Your task to perform on an android device: Open privacy settings Image 0: 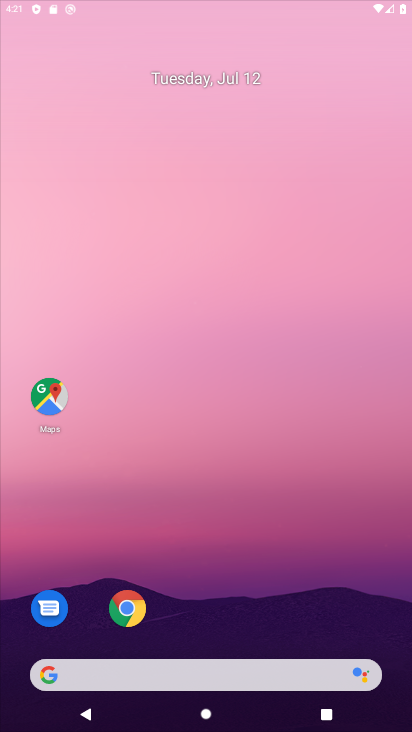
Step 0: drag from (234, 632) to (97, 5)
Your task to perform on an android device: Open privacy settings Image 1: 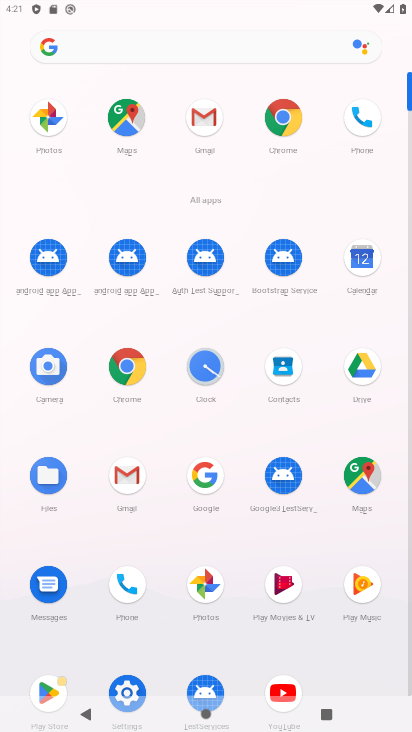
Step 1: click (211, 121)
Your task to perform on an android device: Open privacy settings Image 2: 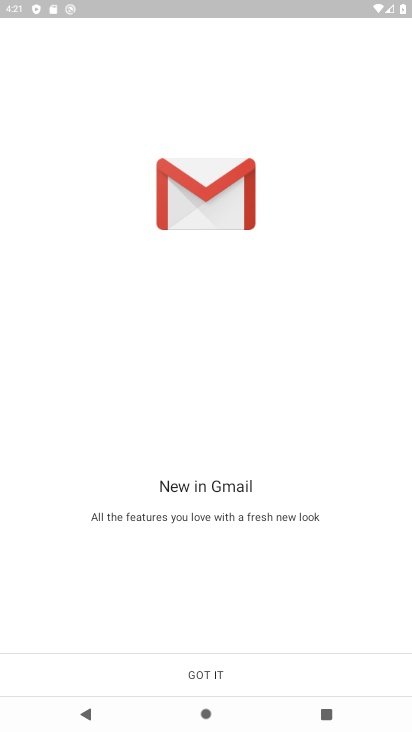
Step 2: press home button
Your task to perform on an android device: Open privacy settings Image 3: 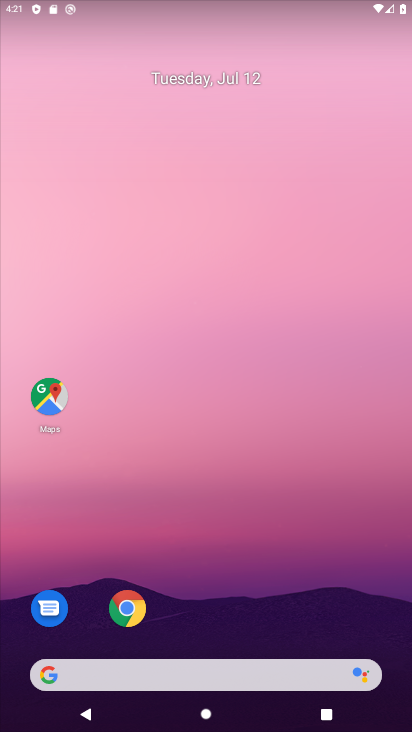
Step 3: drag from (238, 623) to (214, 30)
Your task to perform on an android device: Open privacy settings Image 4: 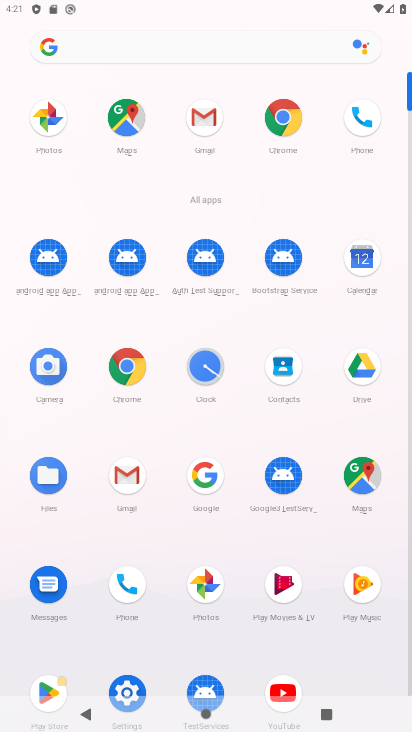
Step 4: click (125, 688)
Your task to perform on an android device: Open privacy settings Image 5: 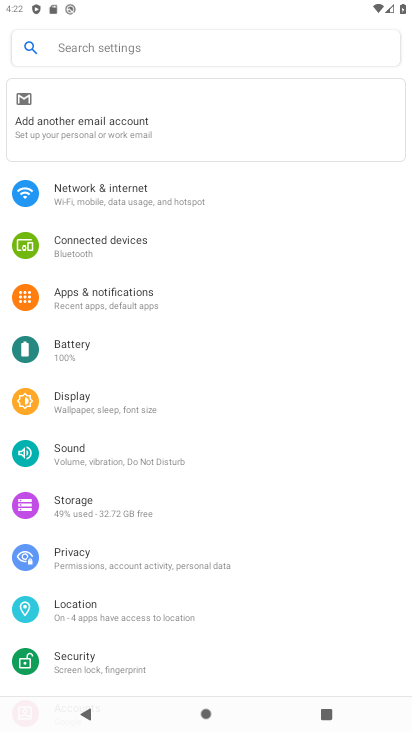
Step 5: click (173, 567)
Your task to perform on an android device: Open privacy settings Image 6: 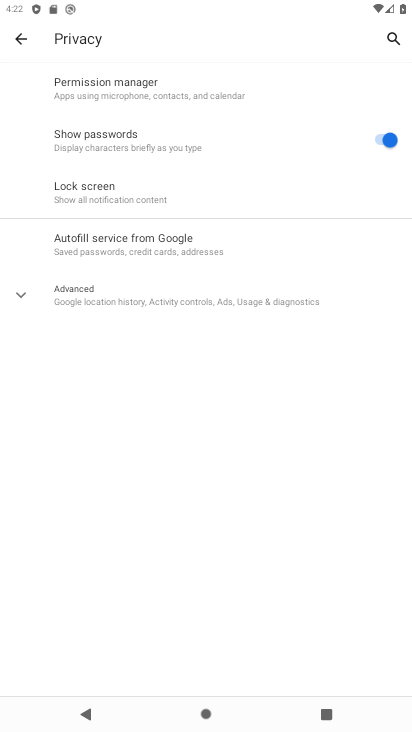
Step 6: task complete